Your task to perform on an android device: snooze an email in the gmail app Image 0: 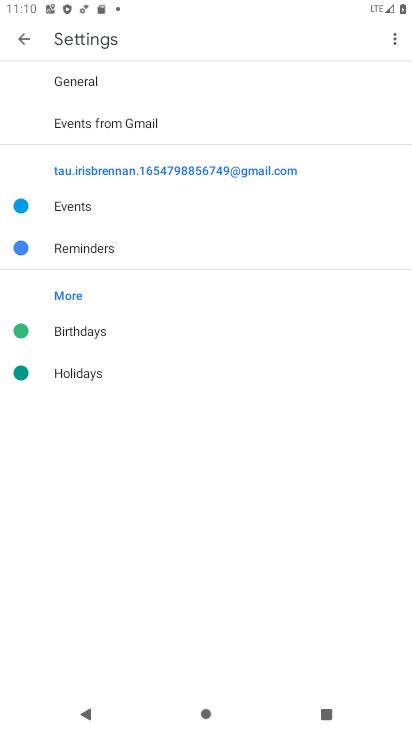
Step 0: press home button
Your task to perform on an android device: snooze an email in the gmail app Image 1: 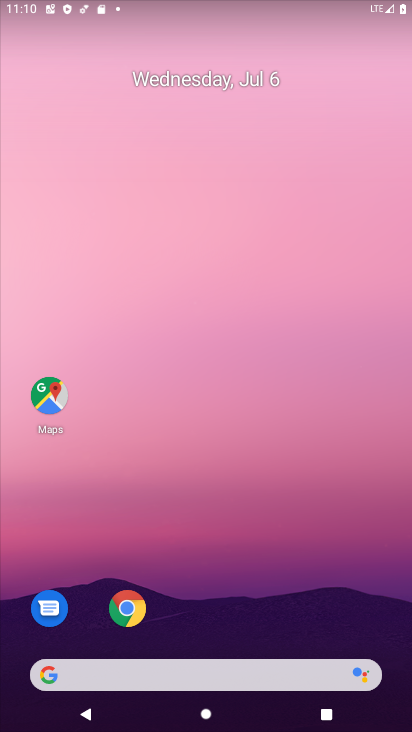
Step 1: drag from (134, 662) to (245, 171)
Your task to perform on an android device: snooze an email in the gmail app Image 2: 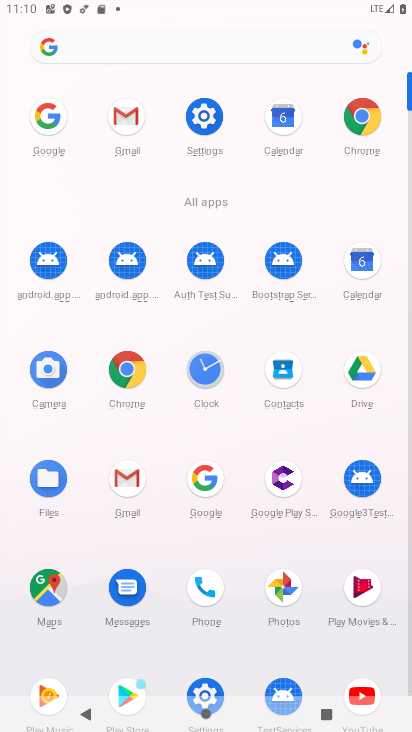
Step 2: click (128, 115)
Your task to perform on an android device: snooze an email in the gmail app Image 3: 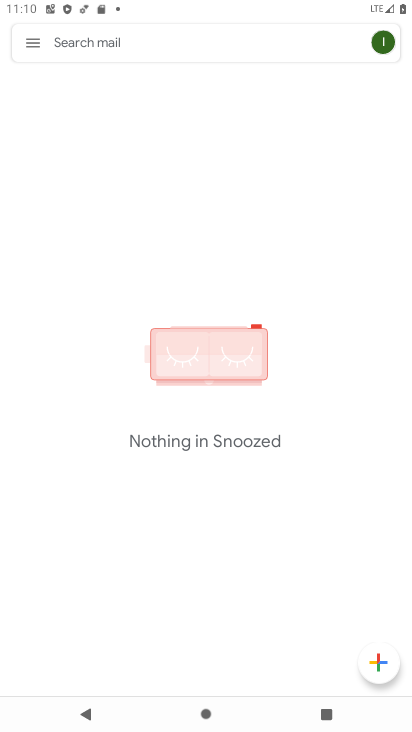
Step 3: click (31, 35)
Your task to perform on an android device: snooze an email in the gmail app Image 4: 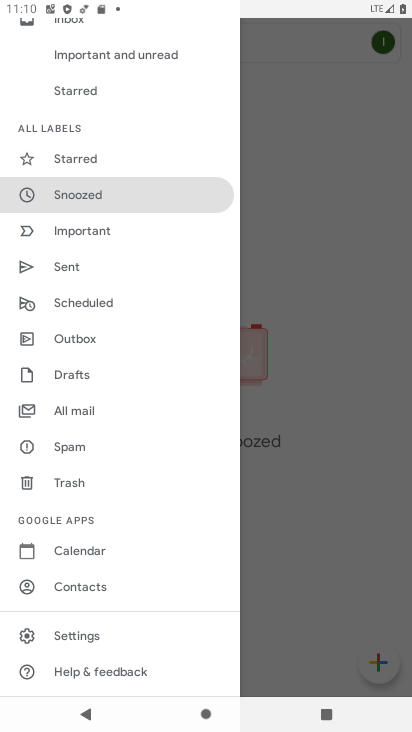
Step 4: click (282, 433)
Your task to perform on an android device: snooze an email in the gmail app Image 5: 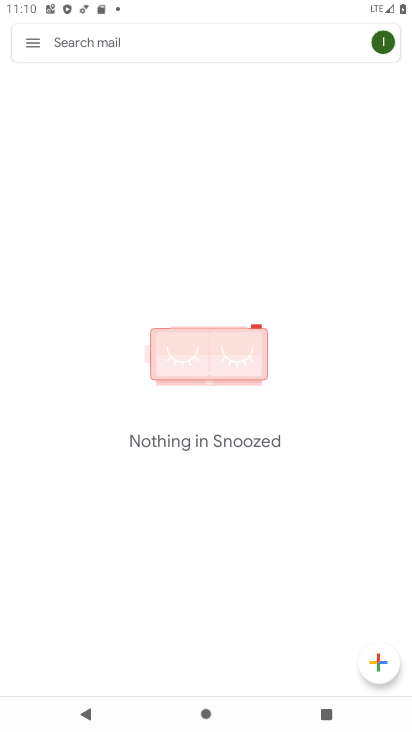
Step 5: click (39, 42)
Your task to perform on an android device: snooze an email in the gmail app Image 6: 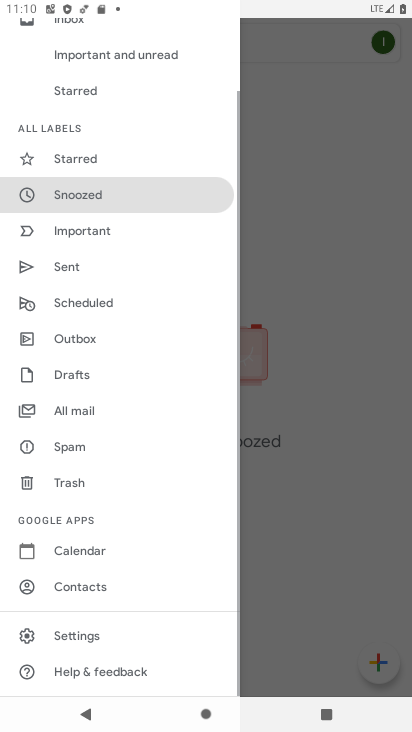
Step 6: drag from (79, 59) to (103, 459)
Your task to perform on an android device: snooze an email in the gmail app Image 7: 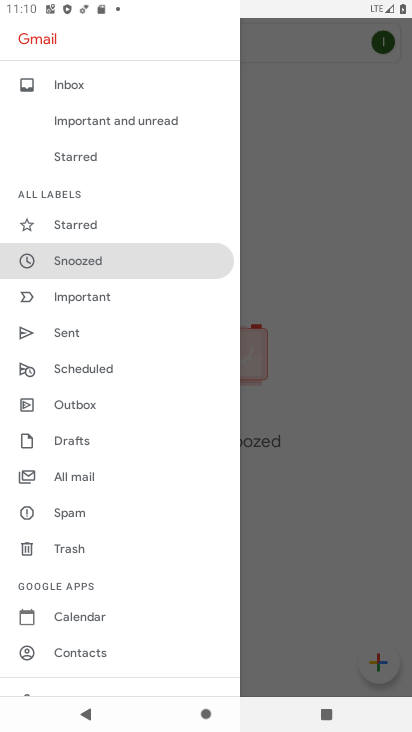
Step 7: click (70, 85)
Your task to perform on an android device: snooze an email in the gmail app Image 8: 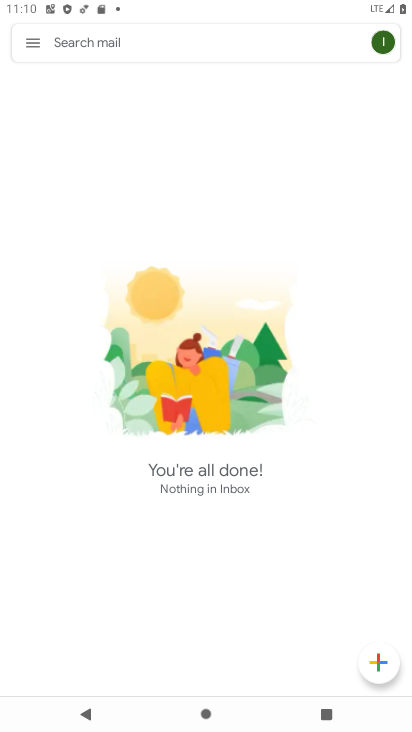
Step 8: task complete